Your task to perform on an android device: snooze an email in the gmail app Image 0: 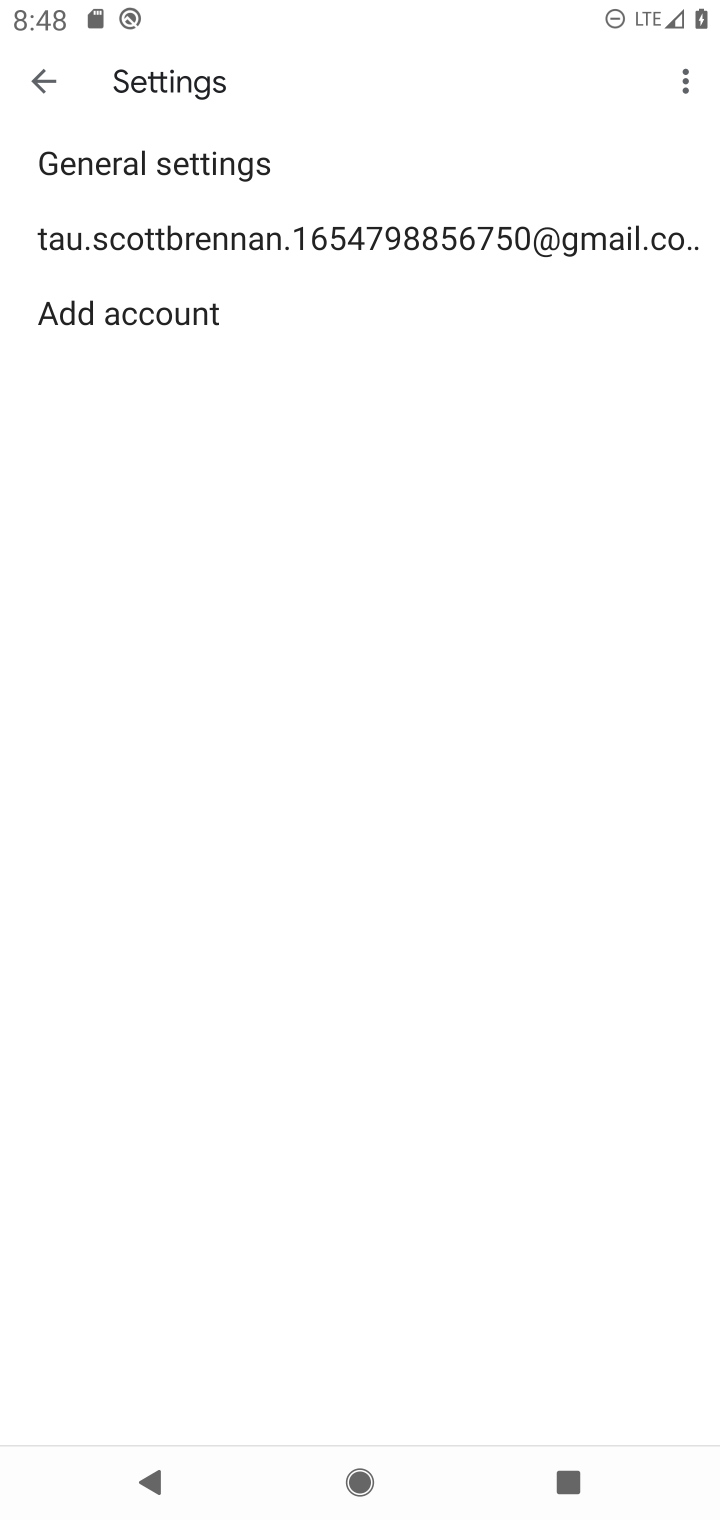
Step 0: click (47, 76)
Your task to perform on an android device: snooze an email in the gmail app Image 1: 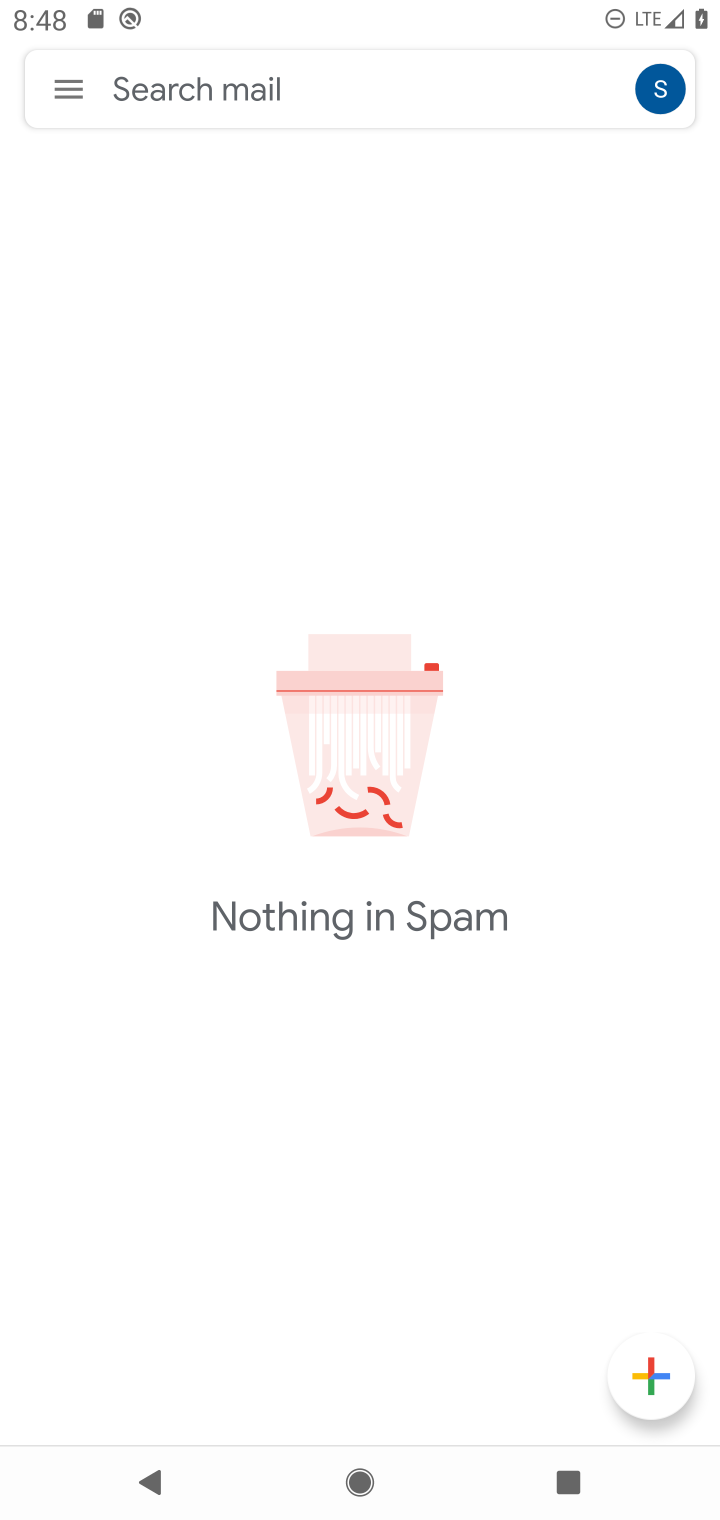
Step 1: click (63, 105)
Your task to perform on an android device: snooze an email in the gmail app Image 2: 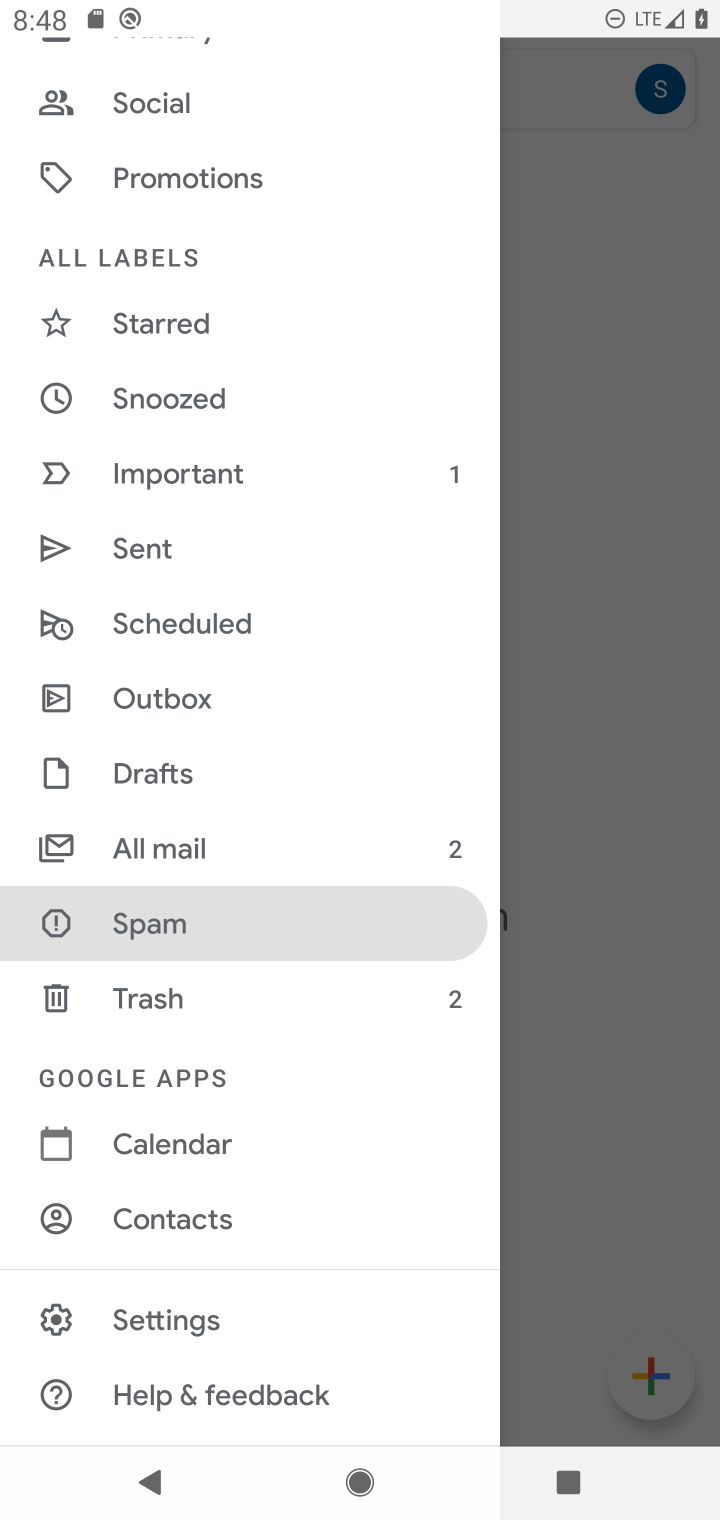
Step 2: click (225, 832)
Your task to perform on an android device: snooze an email in the gmail app Image 3: 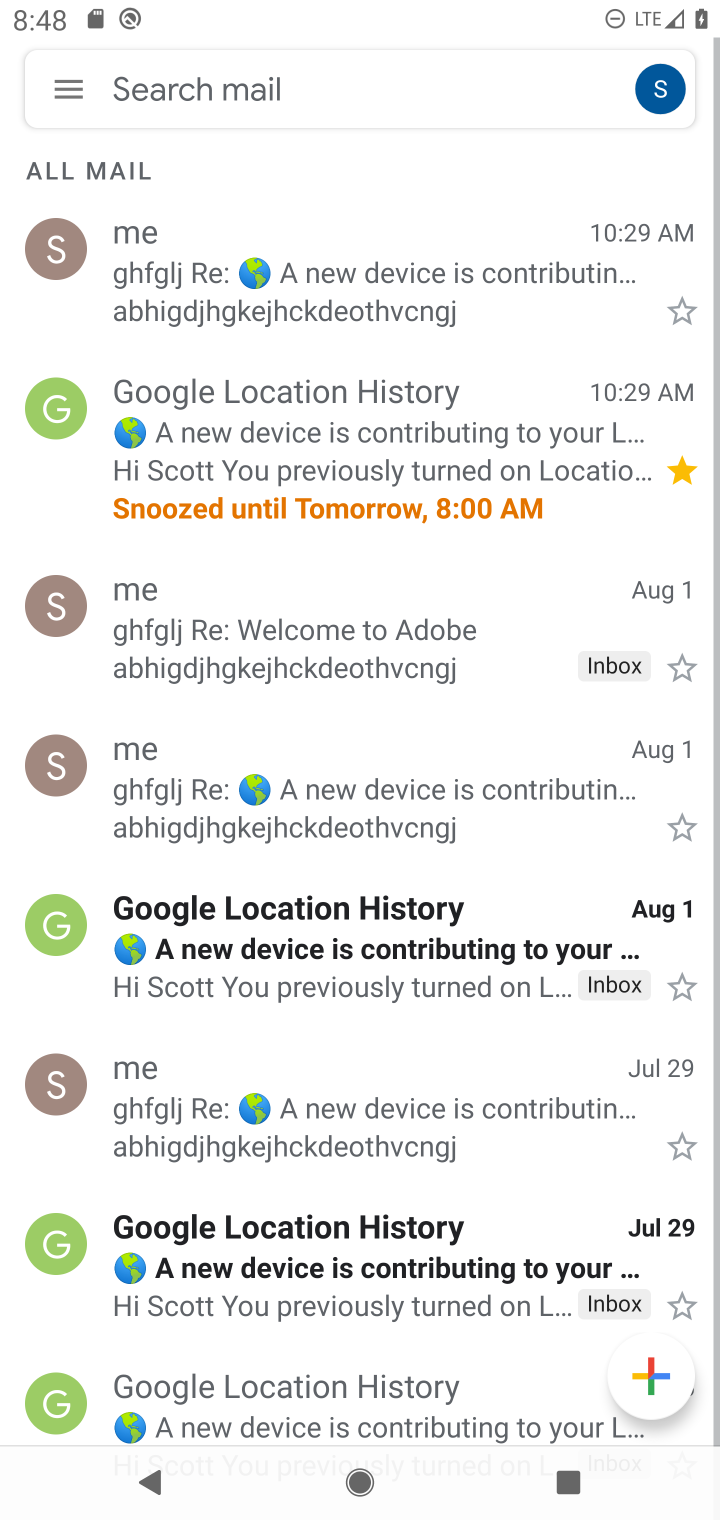
Step 3: click (354, 299)
Your task to perform on an android device: snooze an email in the gmail app Image 4: 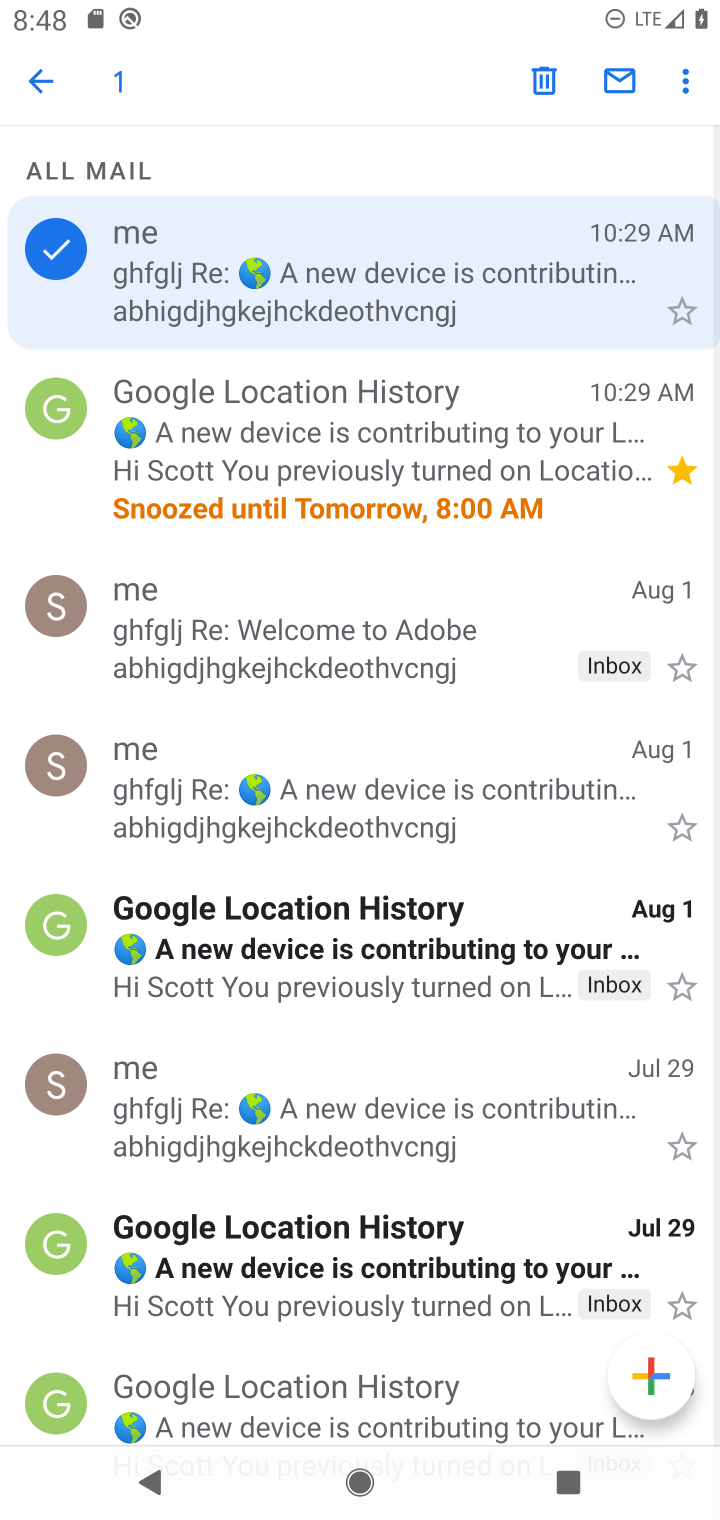
Step 4: click (354, 299)
Your task to perform on an android device: snooze an email in the gmail app Image 5: 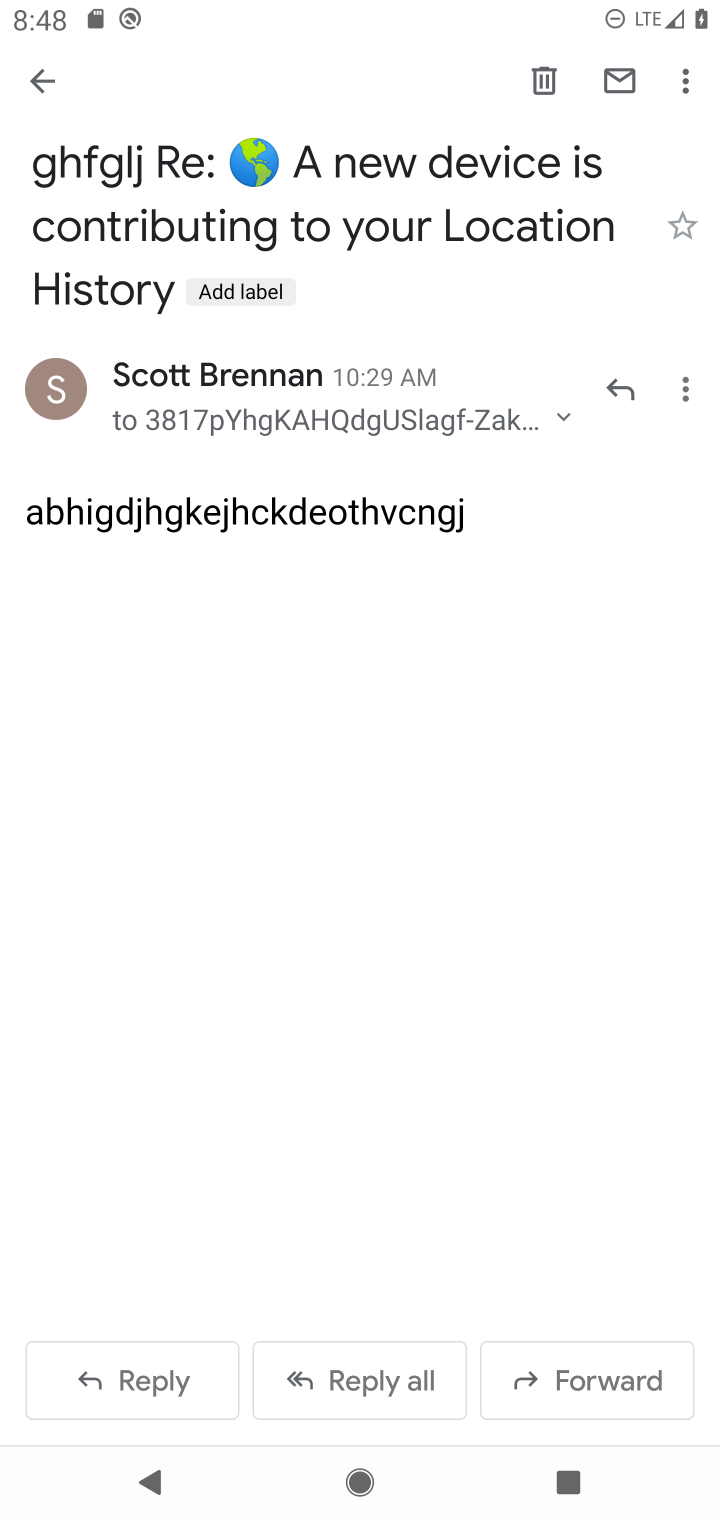
Step 5: click (684, 83)
Your task to perform on an android device: snooze an email in the gmail app Image 6: 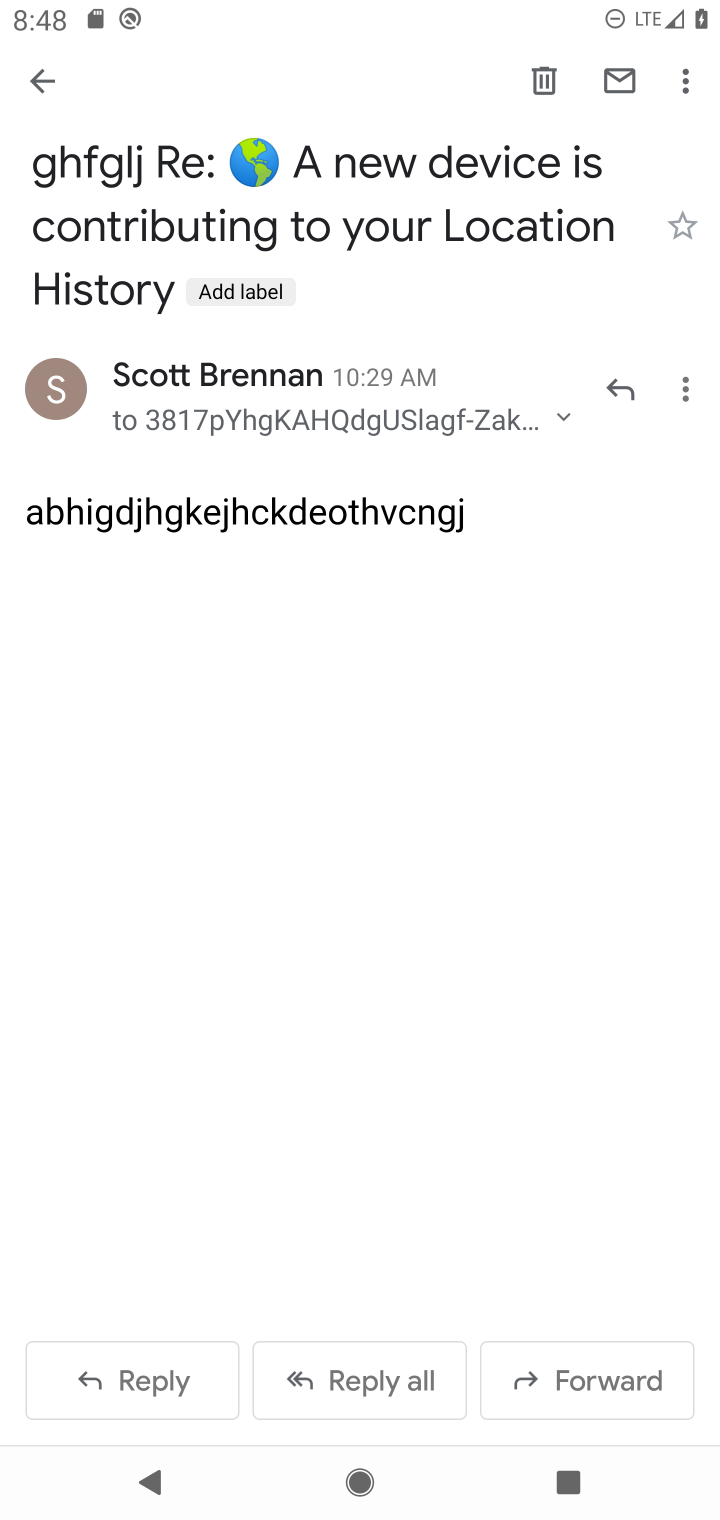
Step 6: click (688, 73)
Your task to perform on an android device: snooze an email in the gmail app Image 7: 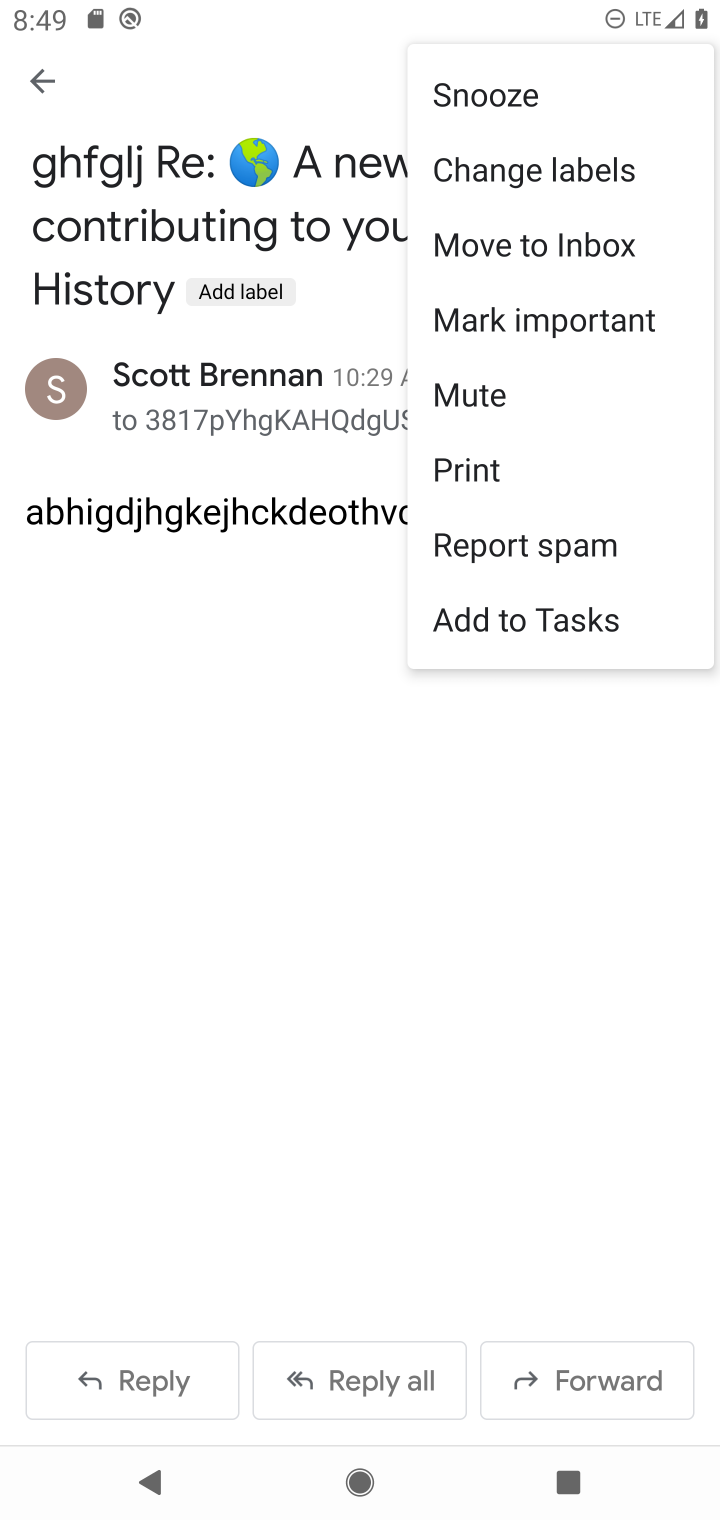
Step 7: click (533, 97)
Your task to perform on an android device: snooze an email in the gmail app Image 8: 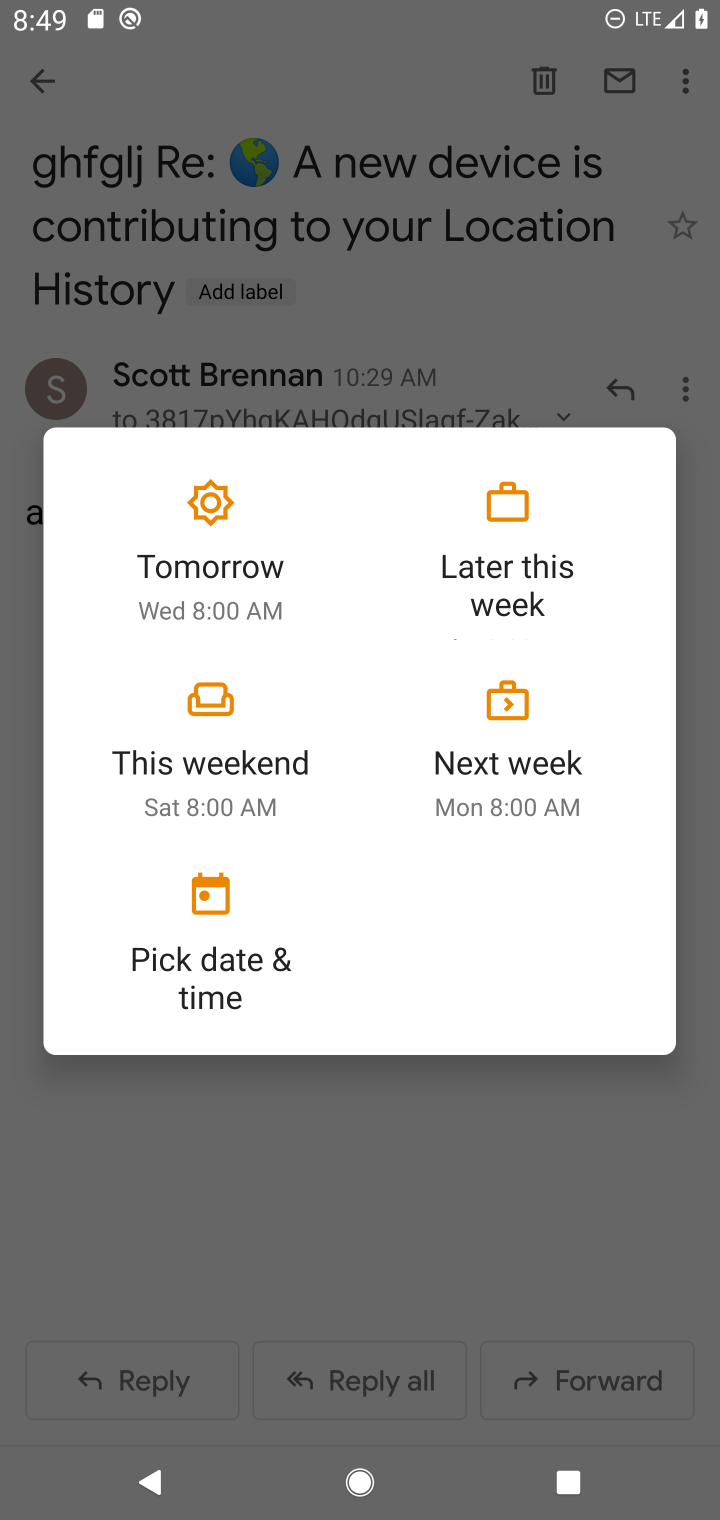
Step 8: click (182, 581)
Your task to perform on an android device: snooze an email in the gmail app Image 9: 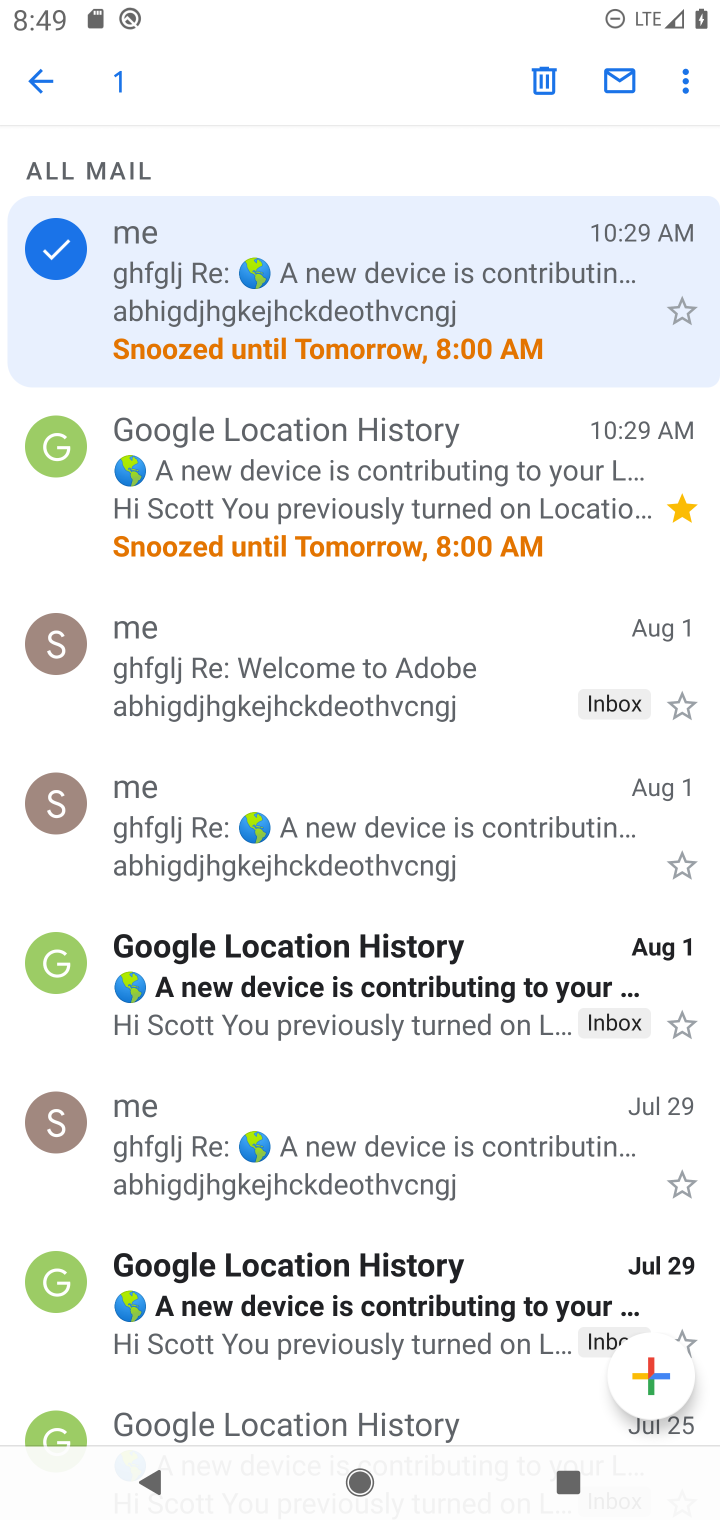
Step 9: click (125, 350)
Your task to perform on an android device: snooze an email in the gmail app Image 10: 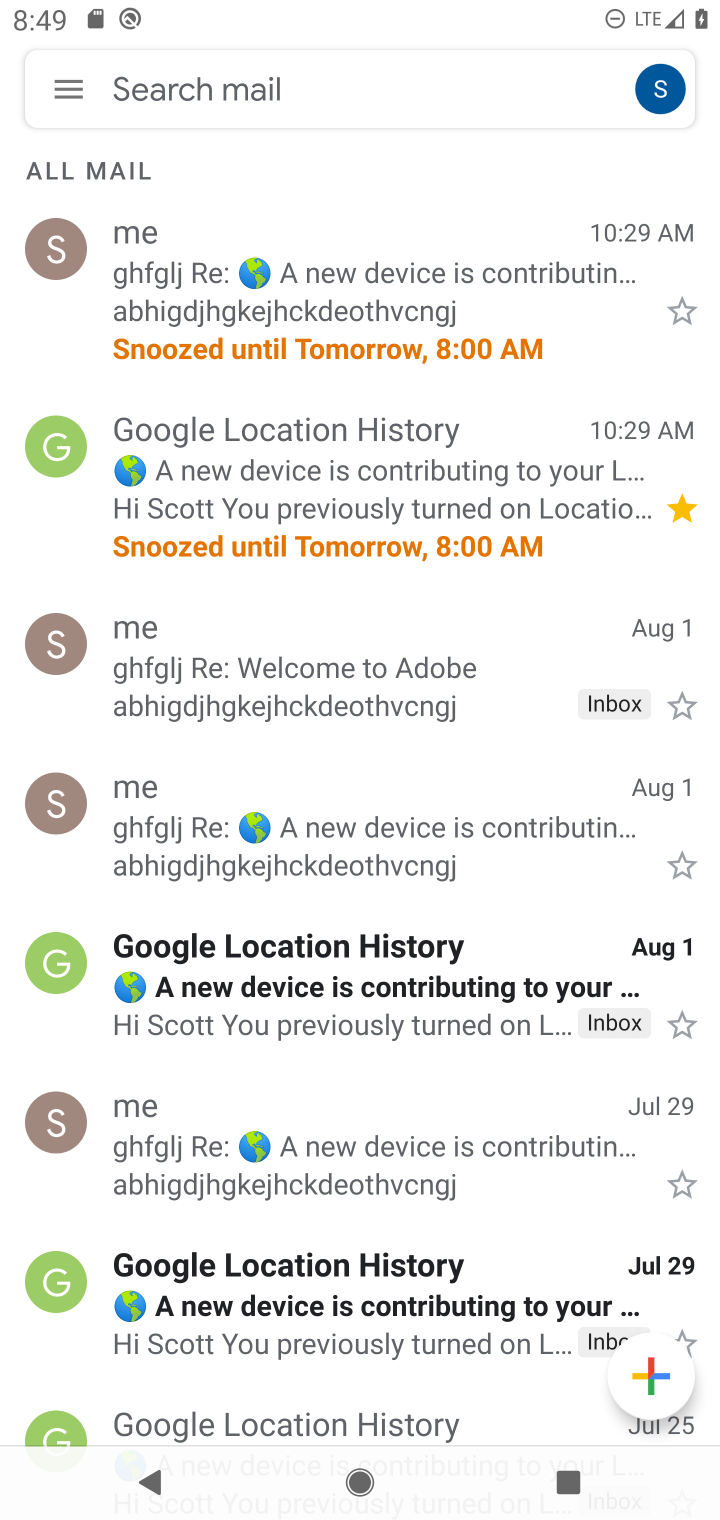
Step 10: task complete